Your task to perform on an android device: remove spam from my inbox in the gmail app Image 0: 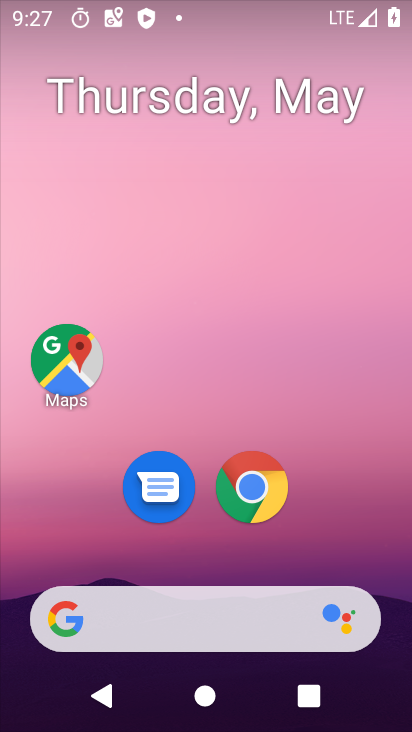
Step 0: drag from (251, 622) to (388, 93)
Your task to perform on an android device: remove spam from my inbox in the gmail app Image 1: 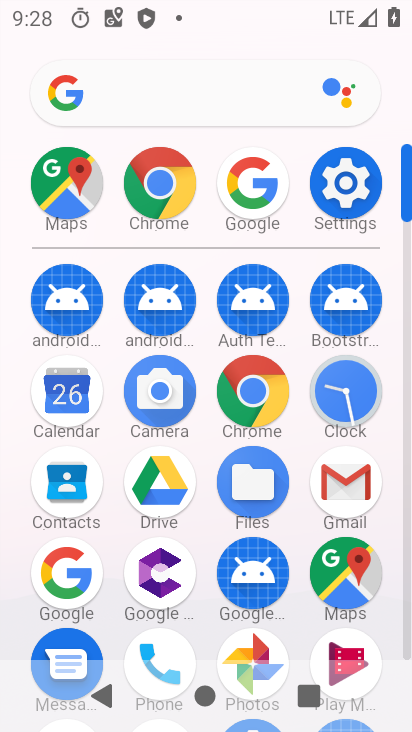
Step 1: click (342, 500)
Your task to perform on an android device: remove spam from my inbox in the gmail app Image 2: 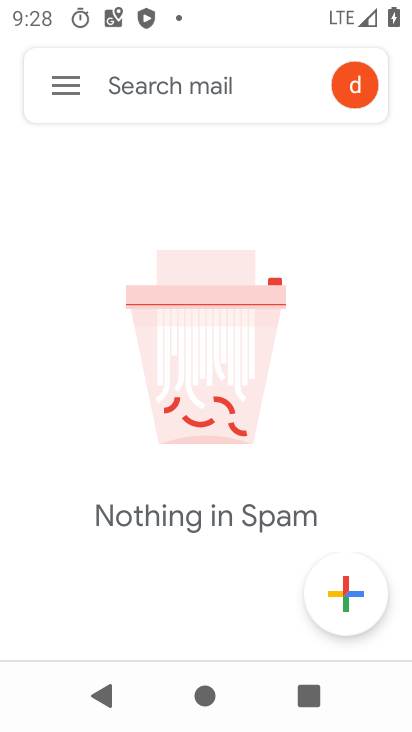
Step 2: click (66, 56)
Your task to perform on an android device: remove spam from my inbox in the gmail app Image 3: 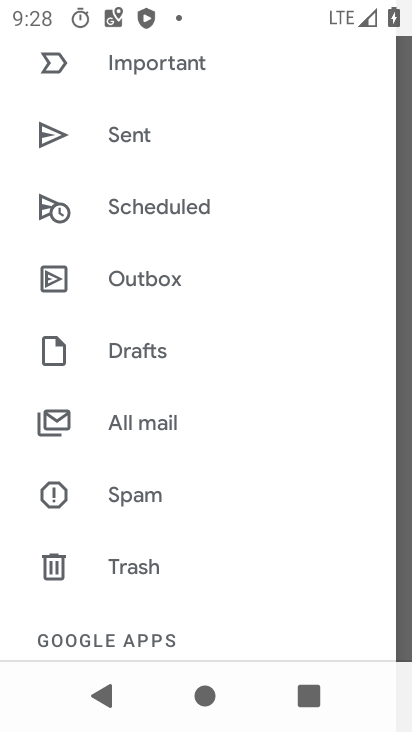
Step 3: task complete